Your task to perform on an android device: Open calendar and show me the third week of next month Image 0: 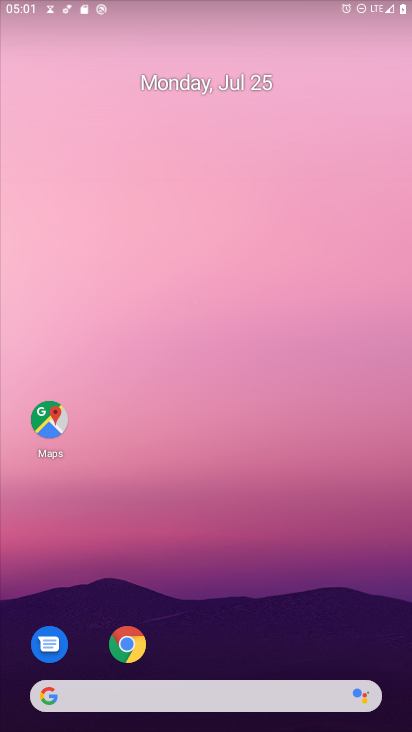
Step 0: press home button
Your task to perform on an android device: Open calendar and show me the third week of next month Image 1: 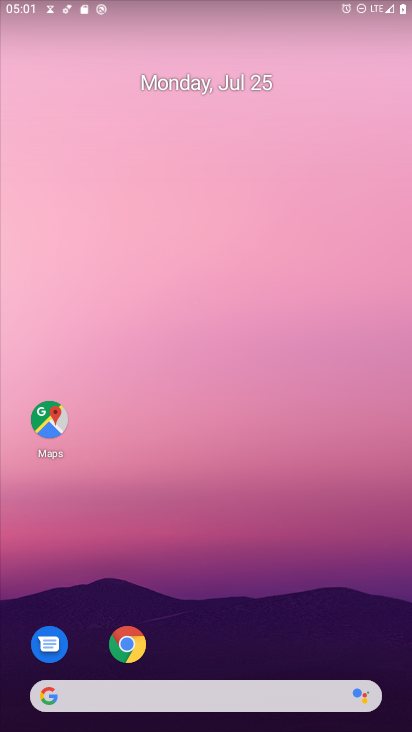
Step 1: press home button
Your task to perform on an android device: Open calendar and show me the third week of next month Image 2: 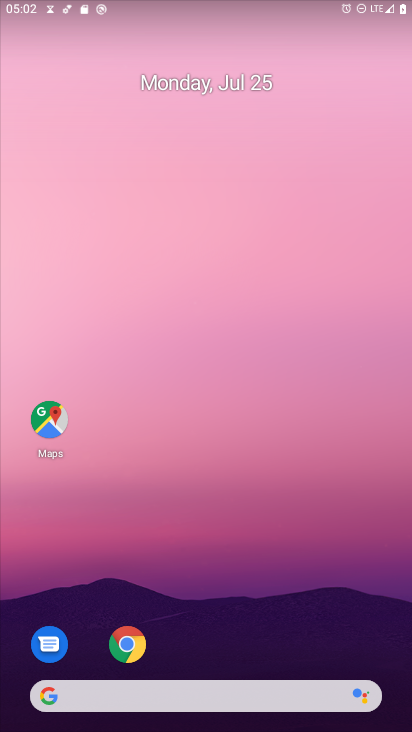
Step 2: drag from (227, 603) to (221, 95)
Your task to perform on an android device: Open calendar and show me the third week of next month Image 3: 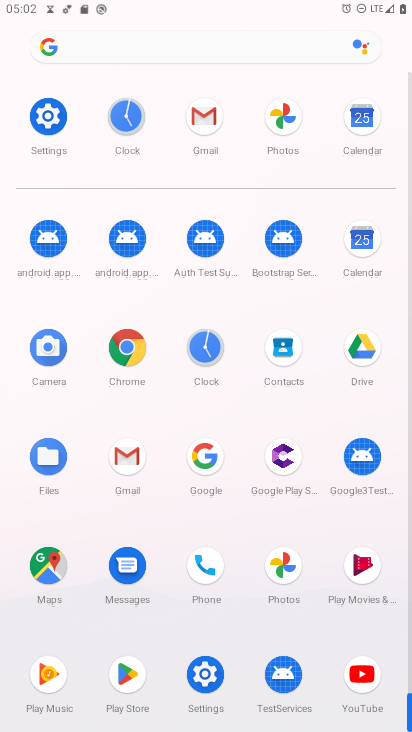
Step 3: click (369, 239)
Your task to perform on an android device: Open calendar and show me the third week of next month Image 4: 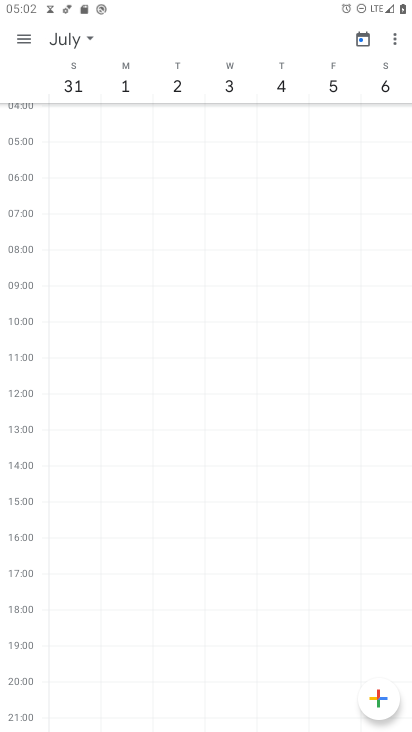
Step 4: task complete